Your task to perform on an android device: Do I have any events today? Image 0: 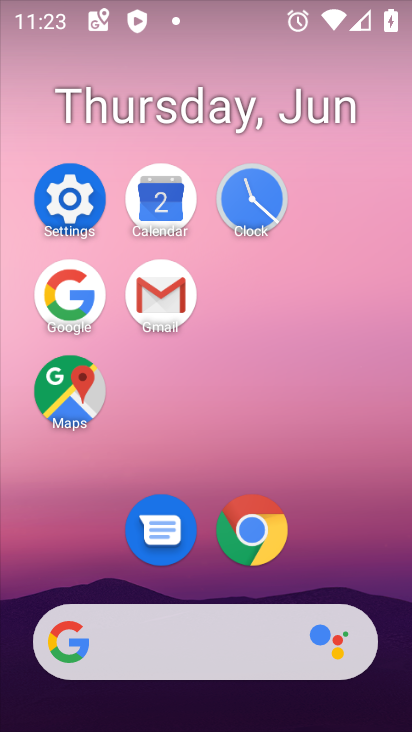
Step 0: click (161, 216)
Your task to perform on an android device: Do I have any events today? Image 1: 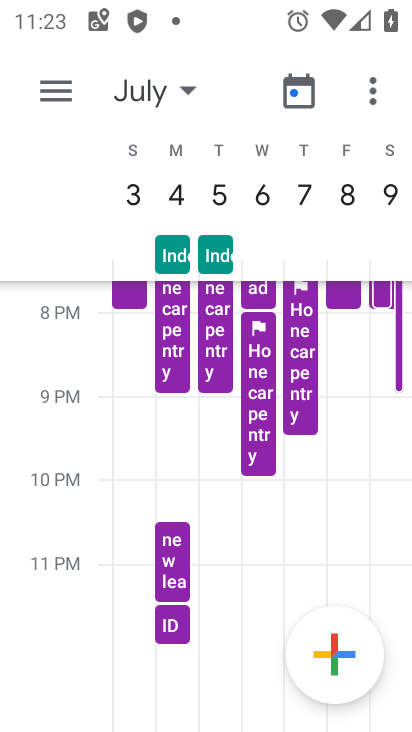
Step 1: click (143, 88)
Your task to perform on an android device: Do I have any events today? Image 2: 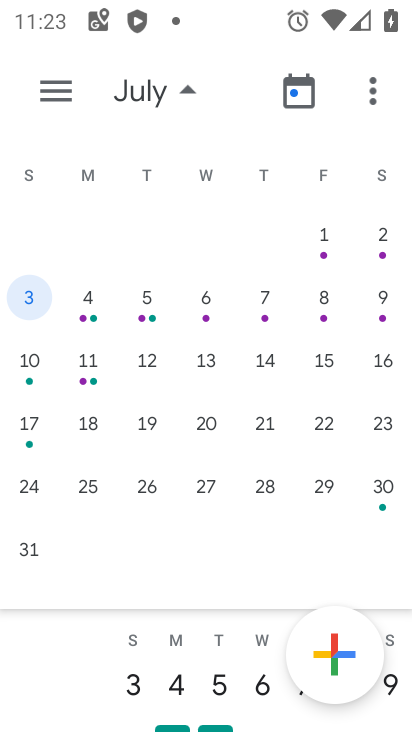
Step 2: drag from (60, 411) to (409, 343)
Your task to perform on an android device: Do I have any events today? Image 3: 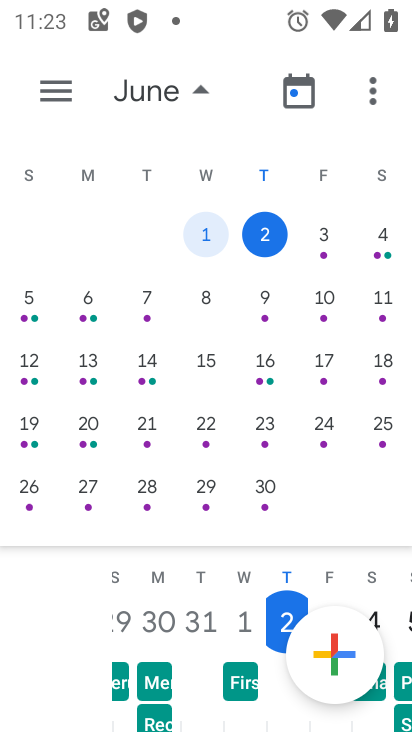
Step 3: click (243, 229)
Your task to perform on an android device: Do I have any events today? Image 4: 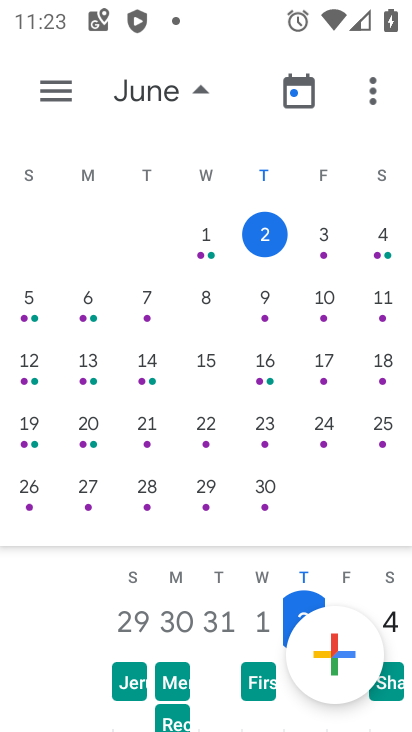
Step 4: click (323, 243)
Your task to perform on an android device: Do I have any events today? Image 5: 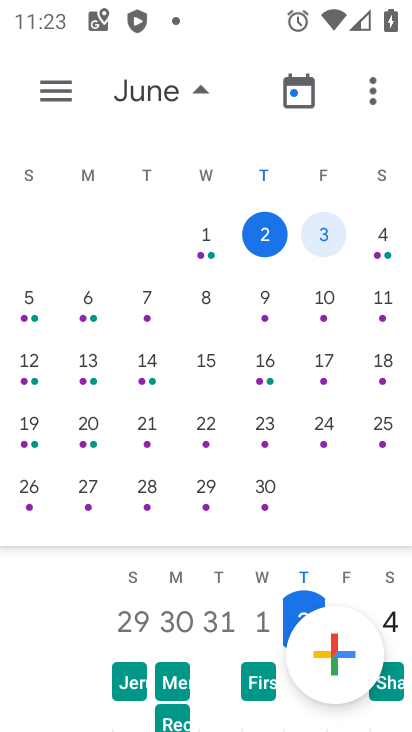
Step 5: click (323, 234)
Your task to perform on an android device: Do I have any events today? Image 6: 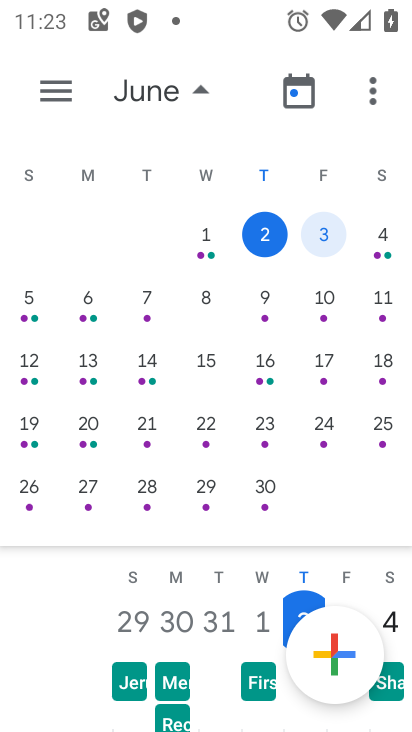
Step 6: click (356, 587)
Your task to perform on an android device: Do I have any events today? Image 7: 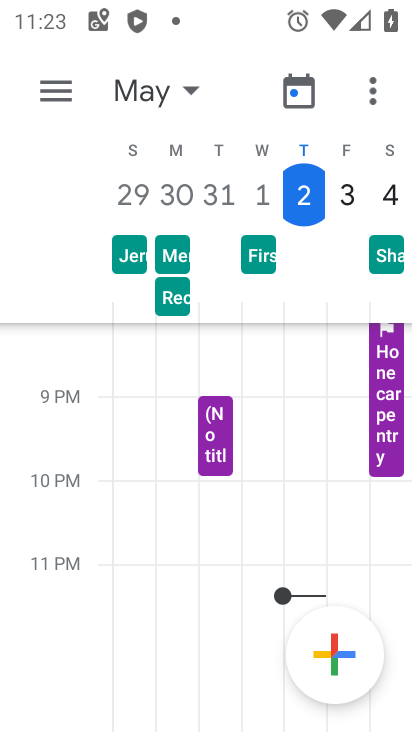
Step 7: click (358, 191)
Your task to perform on an android device: Do I have any events today? Image 8: 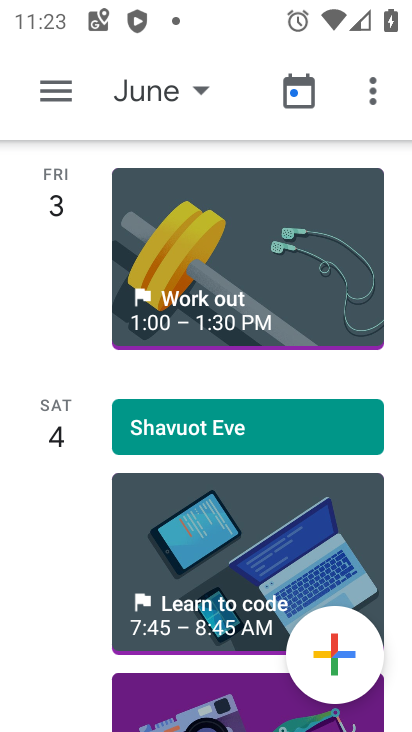
Step 8: task complete